Your task to perform on an android device: Is it going to rain this weekend? Image 0: 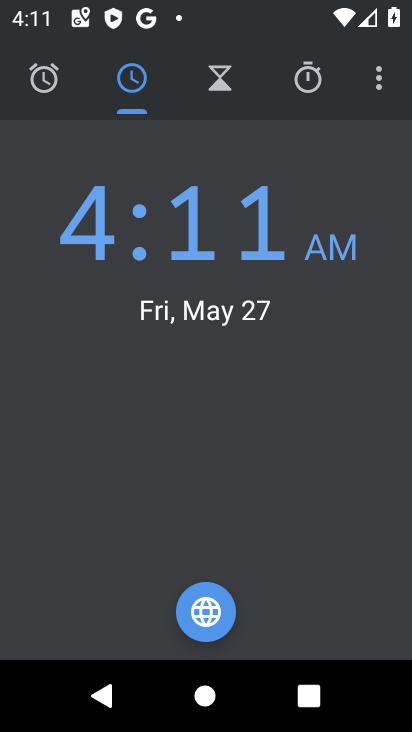
Step 0: press home button
Your task to perform on an android device: Is it going to rain this weekend? Image 1: 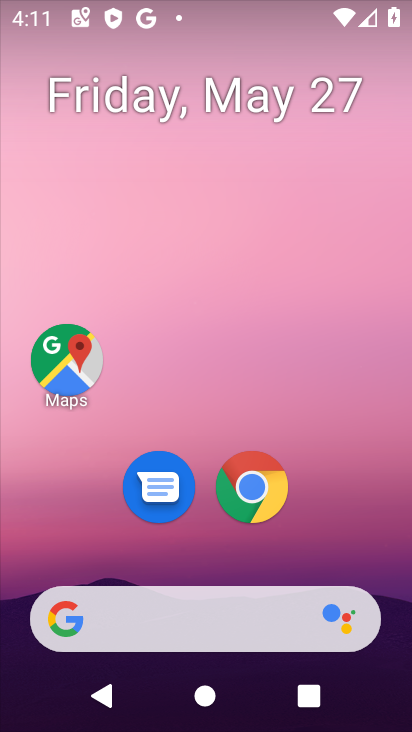
Step 1: drag from (349, 461) to (336, 52)
Your task to perform on an android device: Is it going to rain this weekend? Image 2: 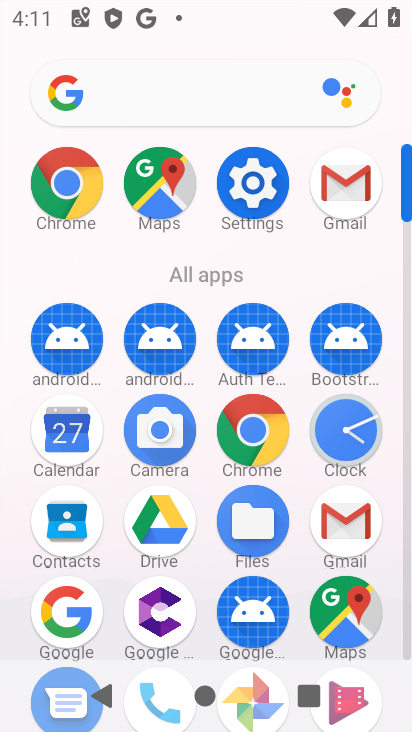
Step 2: click (260, 414)
Your task to perform on an android device: Is it going to rain this weekend? Image 3: 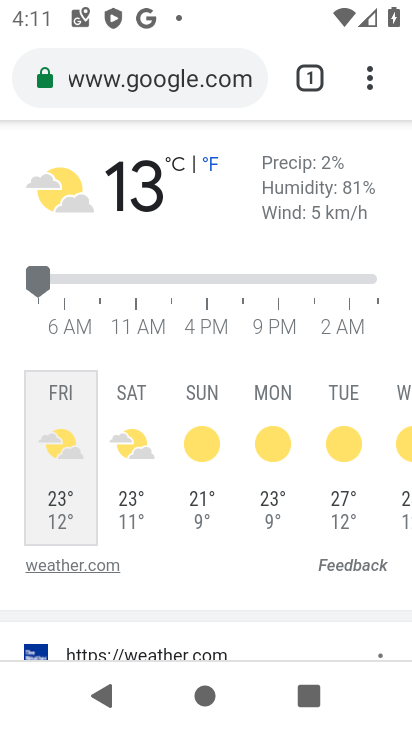
Step 3: click (212, 82)
Your task to perform on an android device: Is it going to rain this weekend? Image 4: 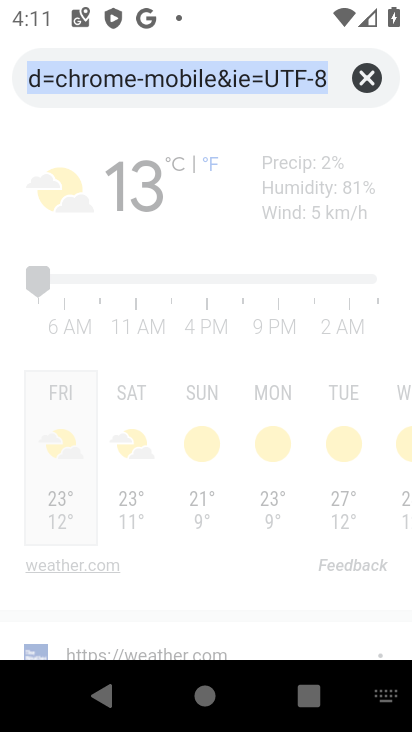
Step 4: click (215, 375)
Your task to perform on an android device: Is it going to rain this weekend? Image 5: 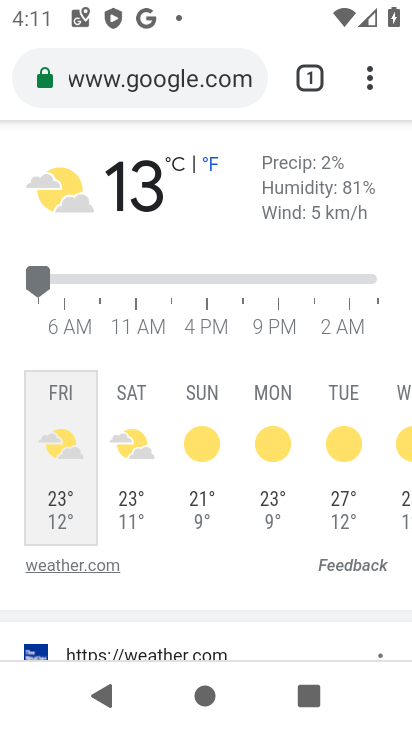
Step 5: click (193, 432)
Your task to perform on an android device: Is it going to rain this weekend? Image 6: 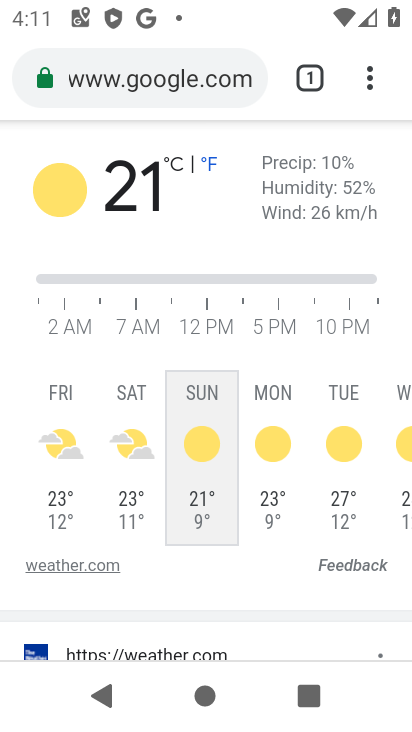
Step 6: task complete